Your task to perform on an android device: Toggle the flashlight Image 0: 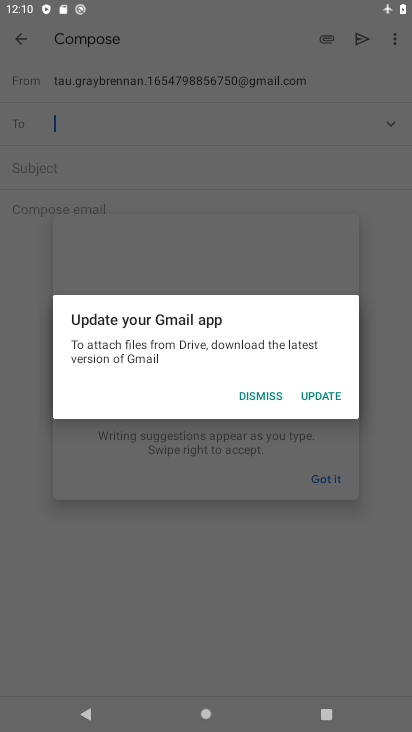
Step 0: press home button
Your task to perform on an android device: Toggle the flashlight Image 1: 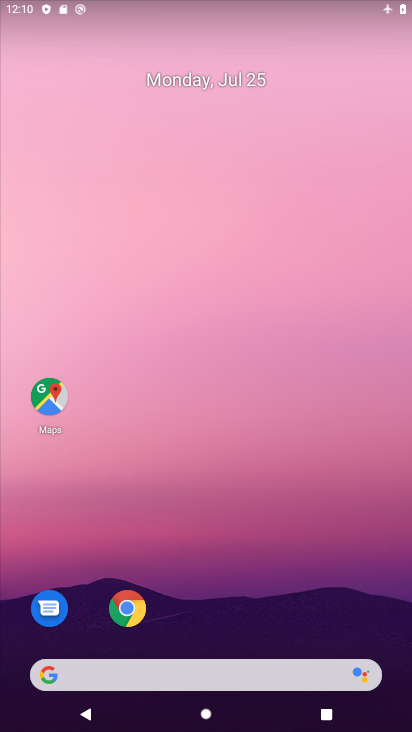
Step 1: drag from (265, 592) to (224, 161)
Your task to perform on an android device: Toggle the flashlight Image 2: 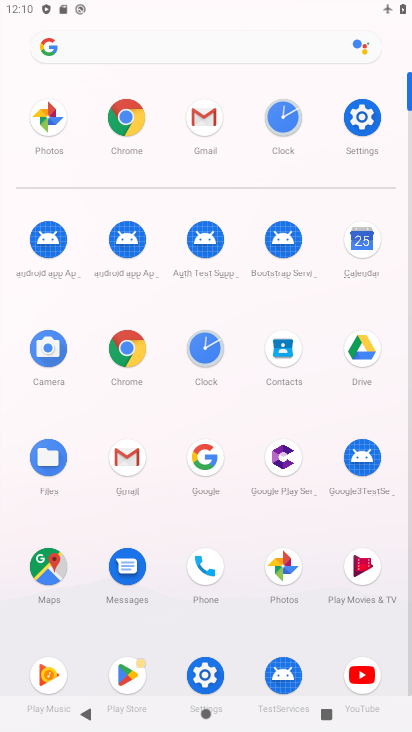
Step 2: click (352, 115)
Your task to perform on an android device: Toggle the flashlight Image 3: 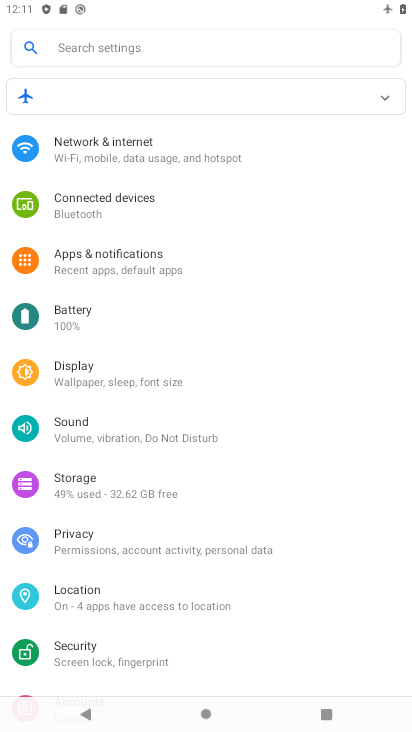
Step 3: task complete